Your task to perform on an android device: Add sony triple a to the cart on costco Image 0: 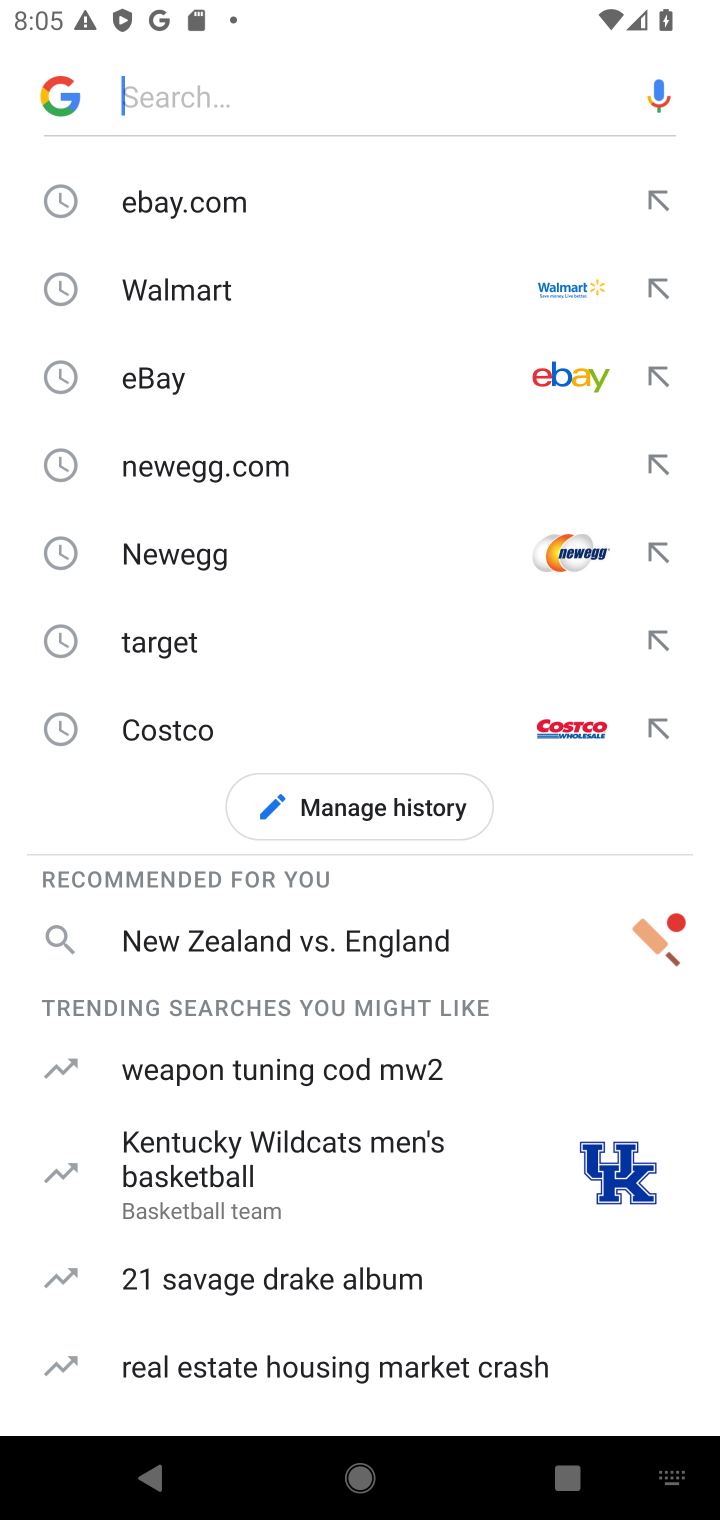
Step 0: press home button
Your task to perform on an android device: Add sony triple a to the cart on costco Image 1: 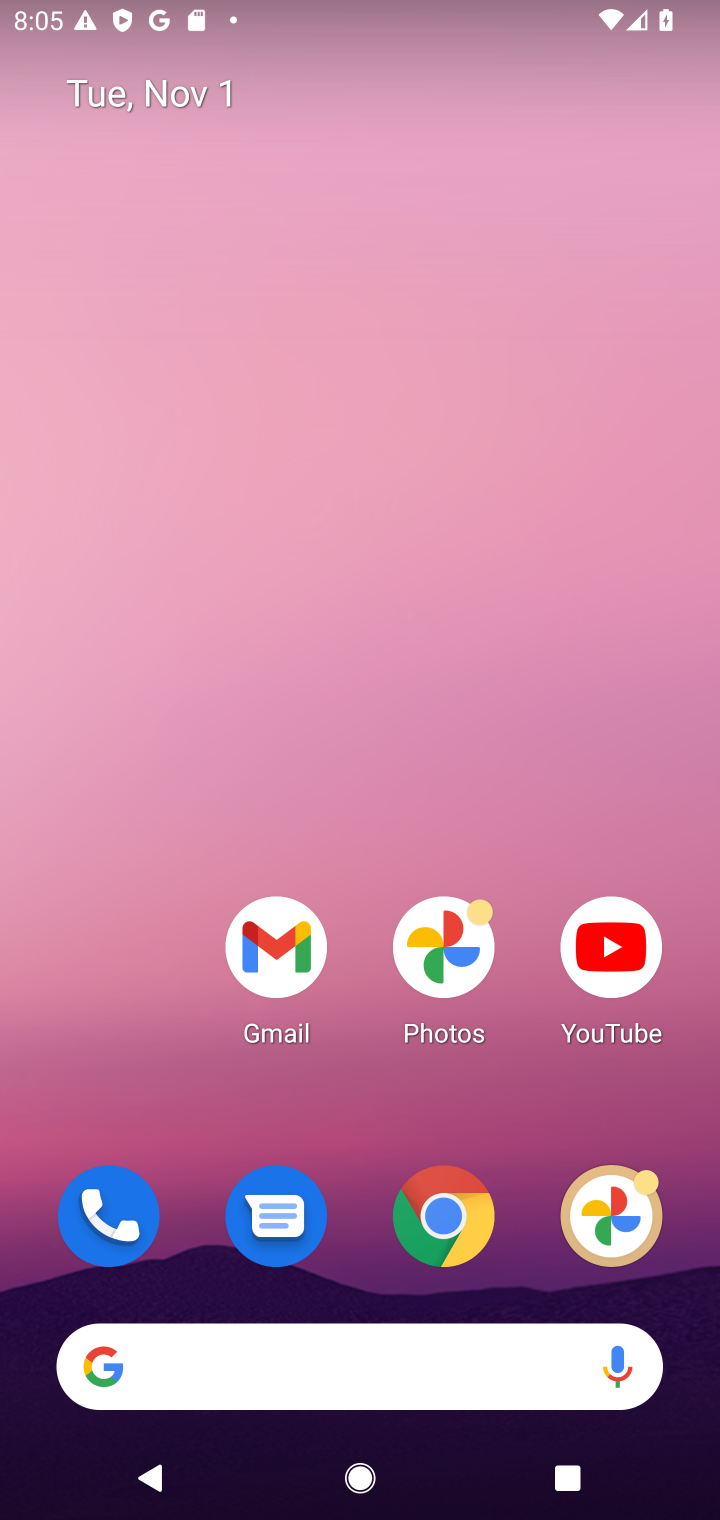
Step 1: click (439, 1238)
Your task to perform on an android device: Add sony triple a to the cart on costco Image 2: 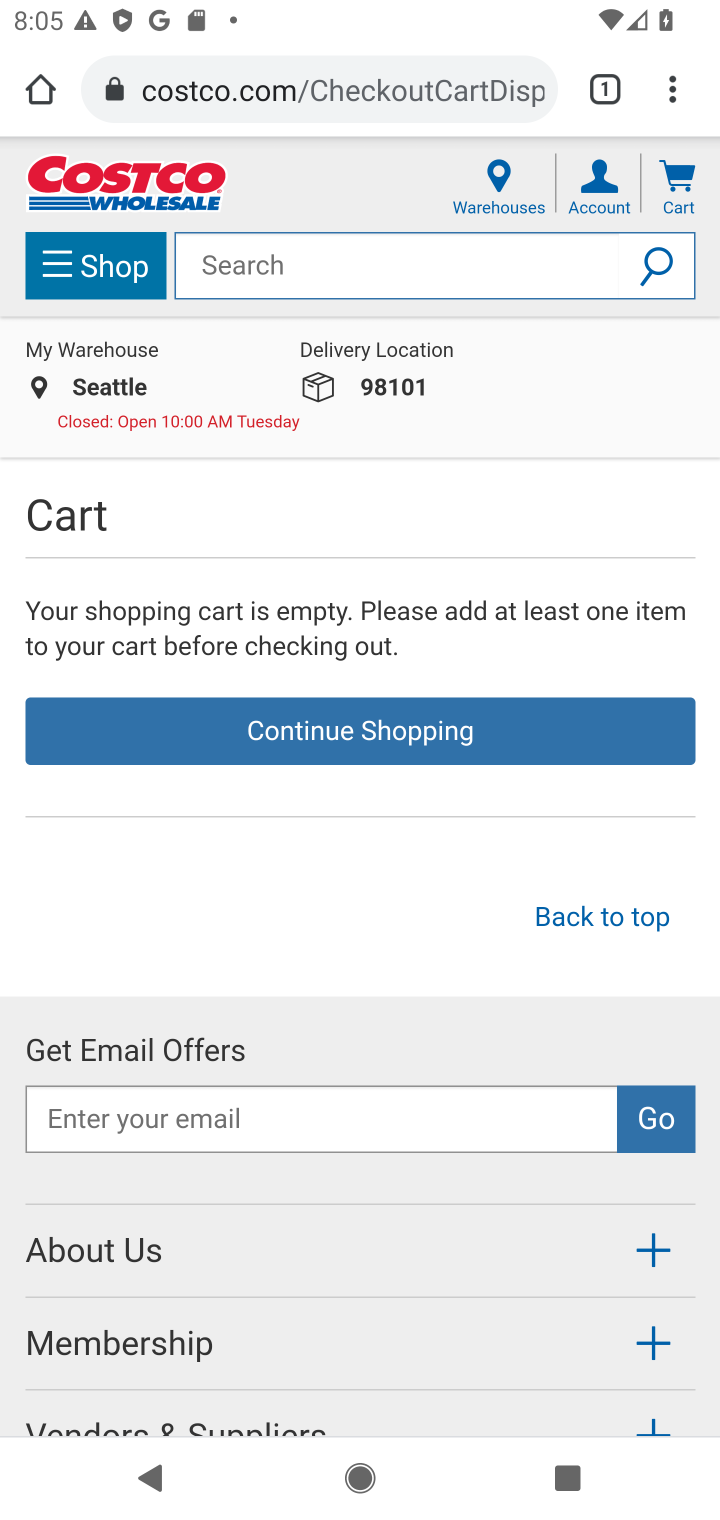
Step 2: click (288, 260)
Your task to perform on an android device: Add sony triple a to the cart on costco Image 3: 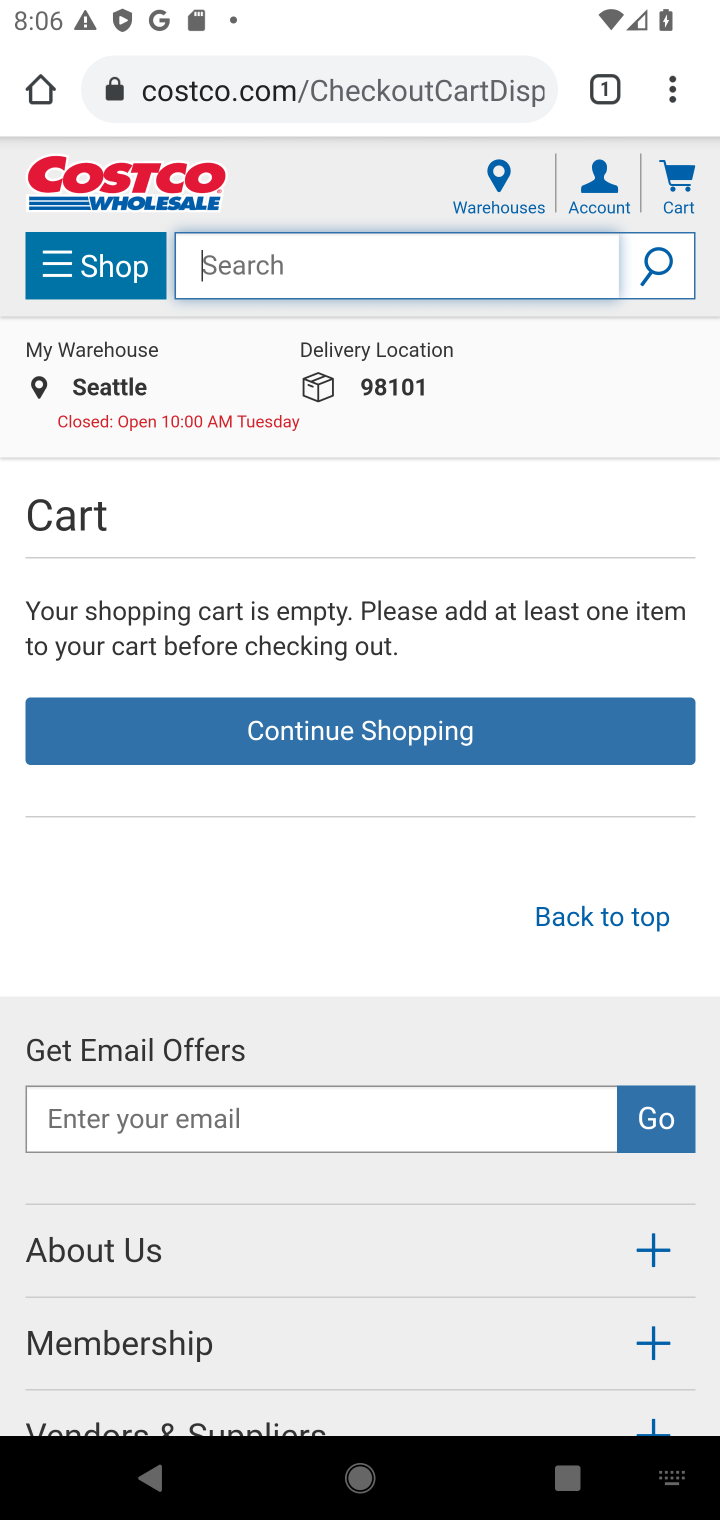
Step 3: type "sony triple a"
Your task to perform on an android device: Add sony triple a to the cart on costco Image 4: 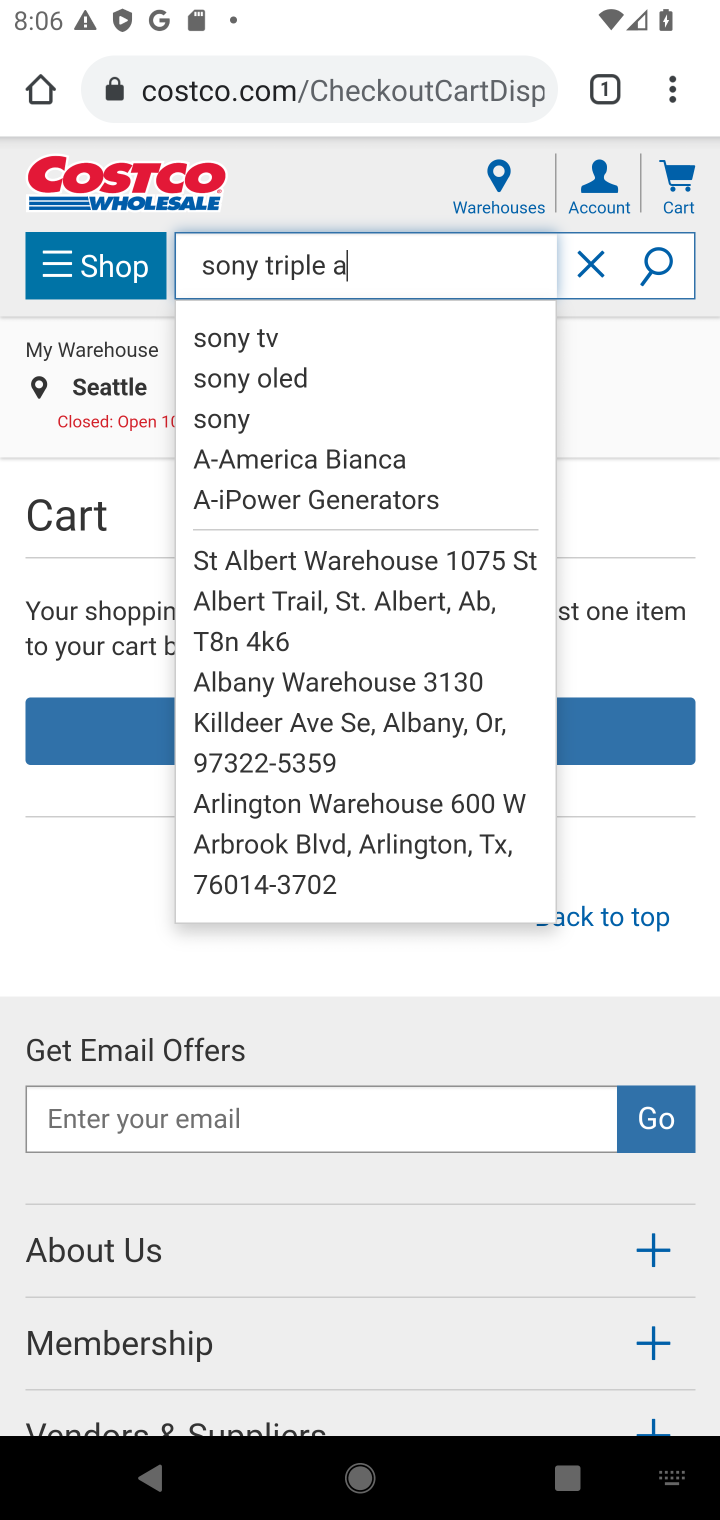
Step 4: click (640, 270)
Your task to perform on an android device: Add sony triple a to the cart on costco Image 5: 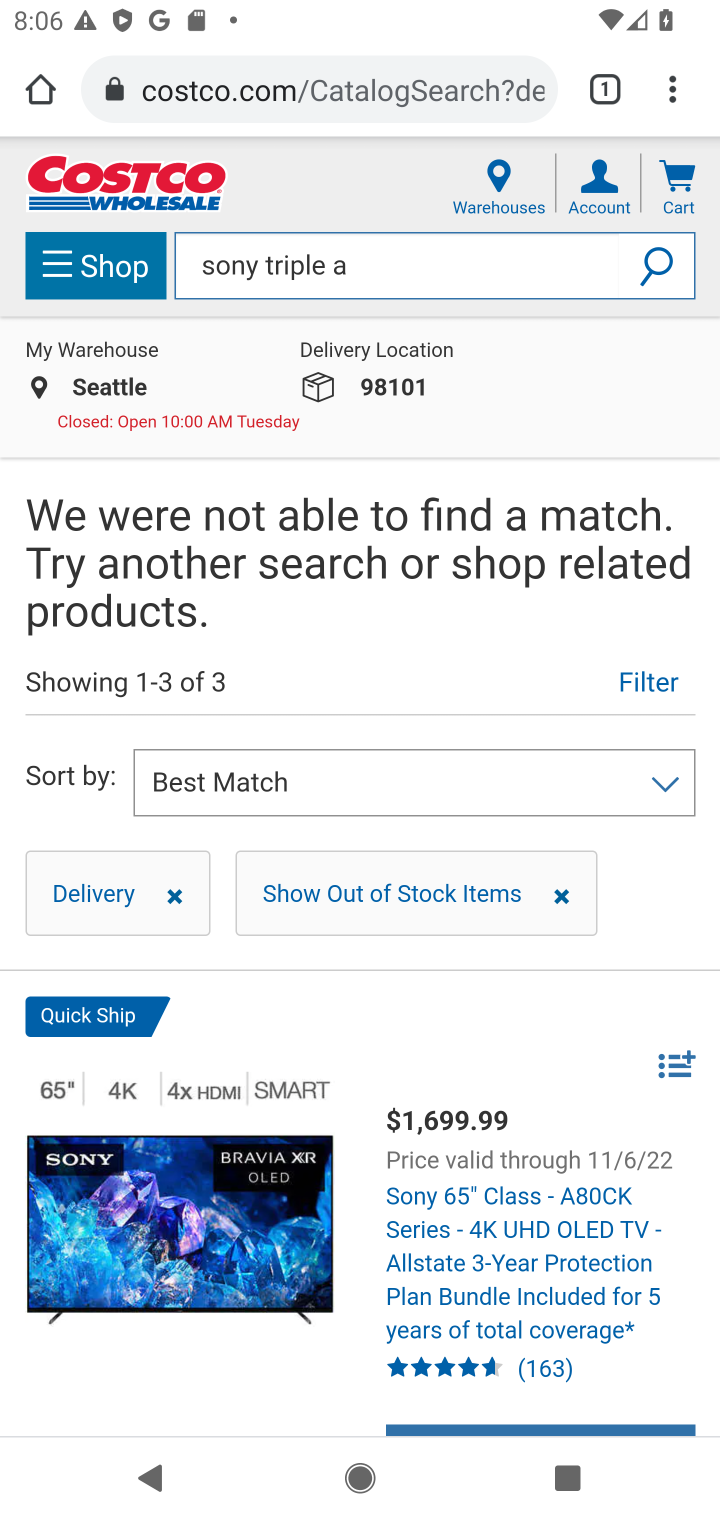
Step 5: task complete